Your task to perform on an android device: Open the phone app and click the voicemail tab. Image 0: 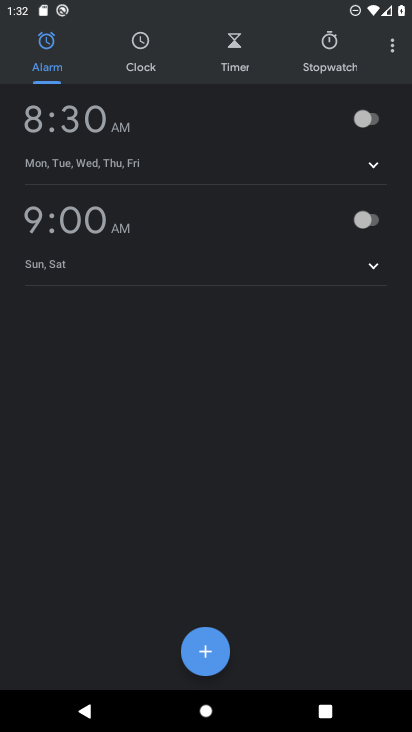
Step 0: press home button
Your task to perform on an android device: Open the phone app and click the voicemail tab. Image 1: 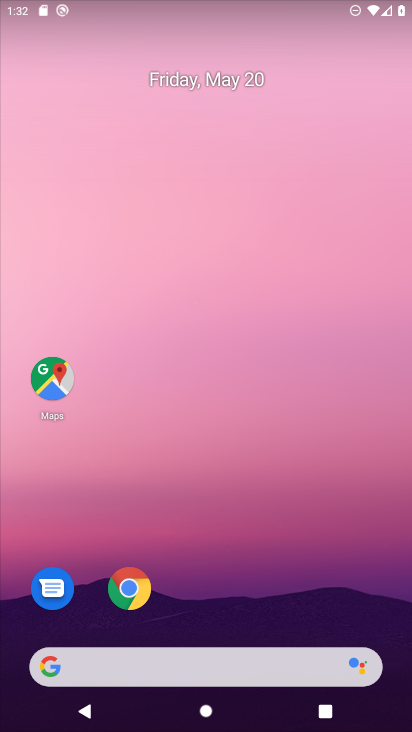
Step 1: drag from (377, 613) to (330, 73)
Your task to perform on an android device: Open the phone app and click the voicemail tab. Image 2: 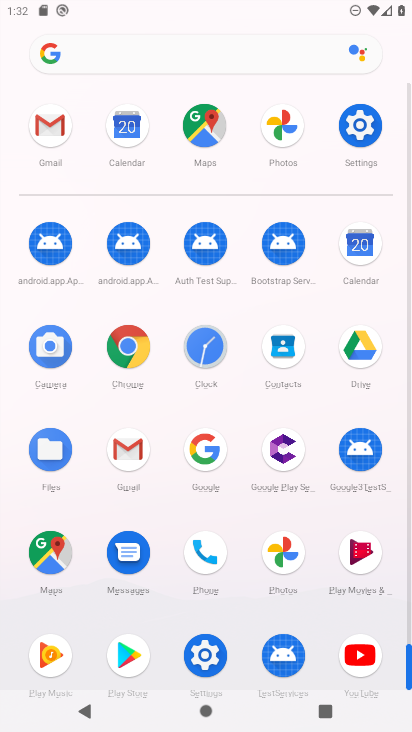
Step 2: click (205, 556)
Your task to perform on an android device: Open the phone app and click the voicemail tab. Image 3: 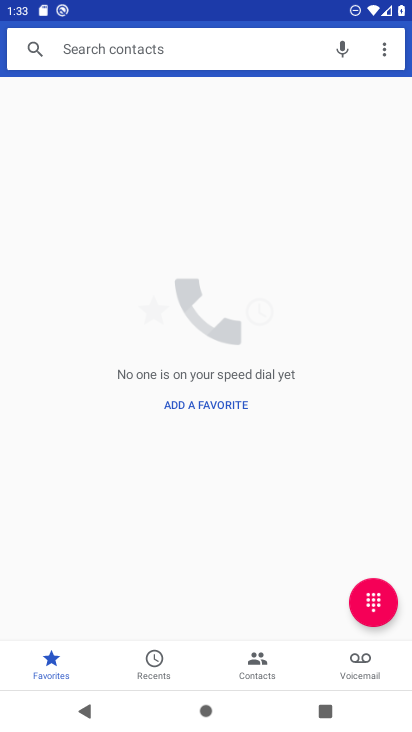
Step 3: click (361, 667)
Your task to perform on an android device: Open the phone app and click the voicemail tab. Image 4: 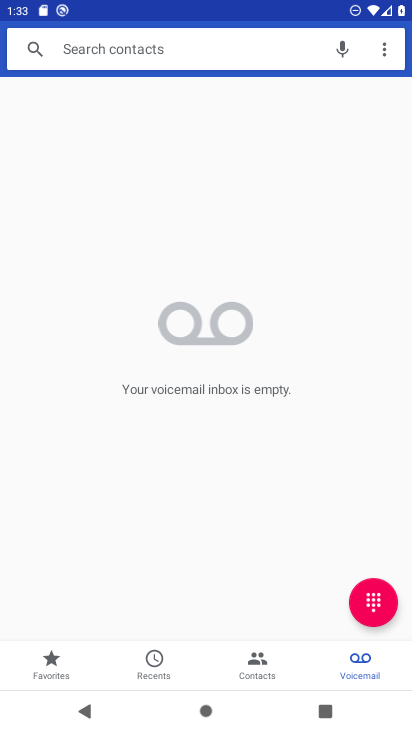
Step 4: task complete